Your task to perform on an android device: Go to network settings Image 0: 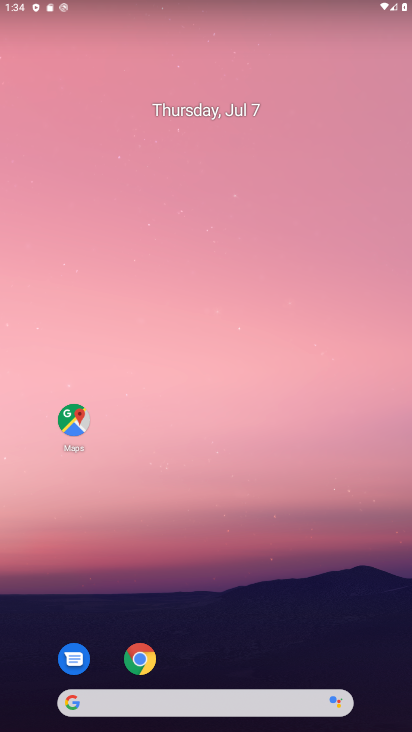
Step 0: drag from (222, 597) to (177, 176)
Your task to perform on an android device: Go to network settings Image 1: 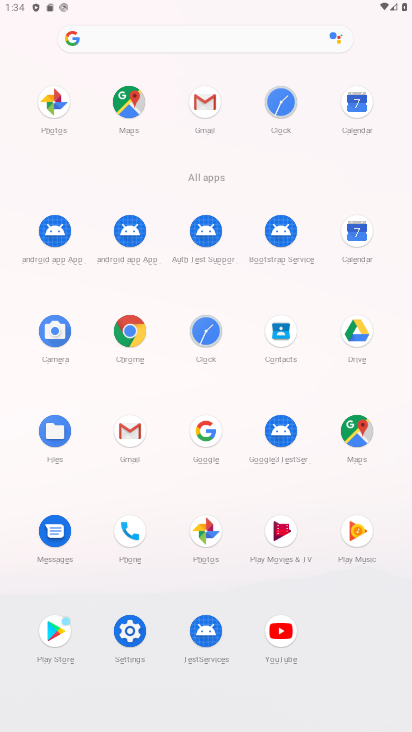
Step 1: click (130, 629)
Your task to perform on an android device: Go to network settings Image 2: 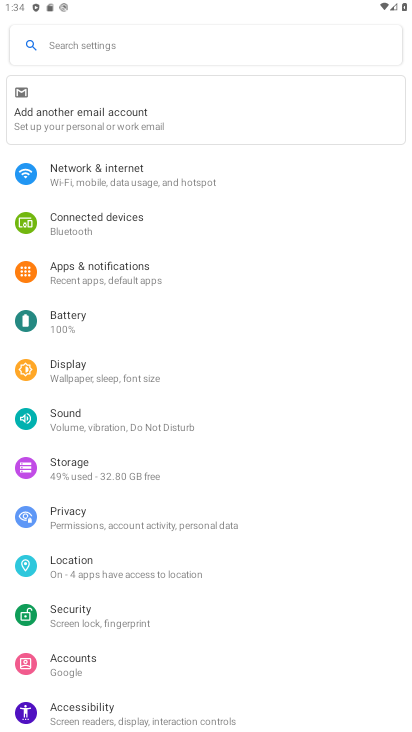
Step 2: click (89, 167)
Your task to perform on an android device: Go to network settings Image 3: 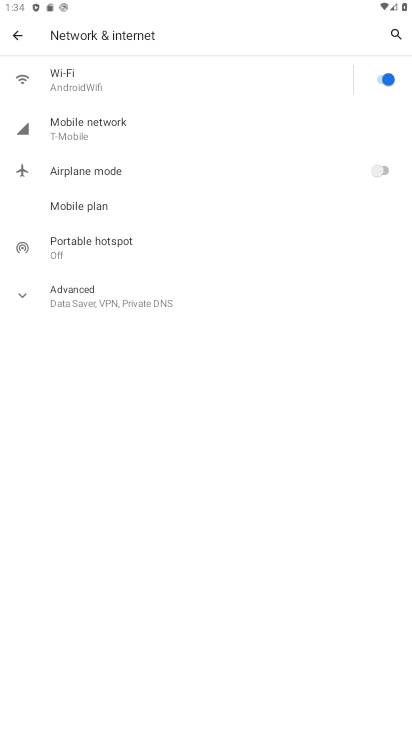
Step 3: click (85, 118)
Your task to perform on an android device: Go to network settings Image 4: 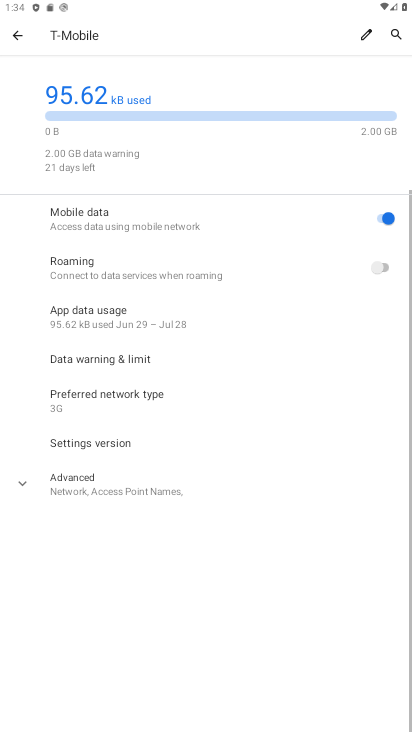
Step 4: task complete